Your task to perform on an android device: Open Amazon Image 0: 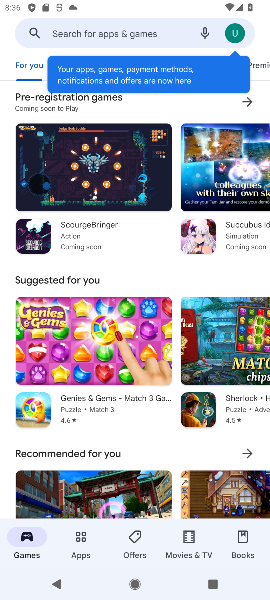
Step 0: drag from (123, 464) to (140, 199)
Your task to perform on an android device: Open Amazon Image 1: 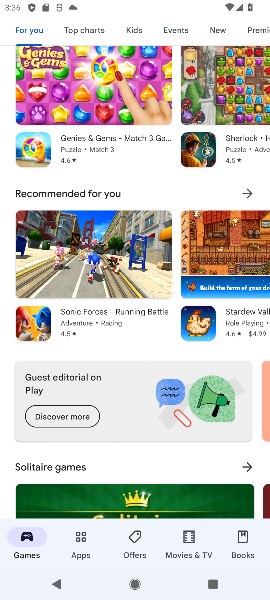
Step 1: drag from (131, 135) to (264, 470)
Your task to perform on an android device: Open Amazon Image 2: 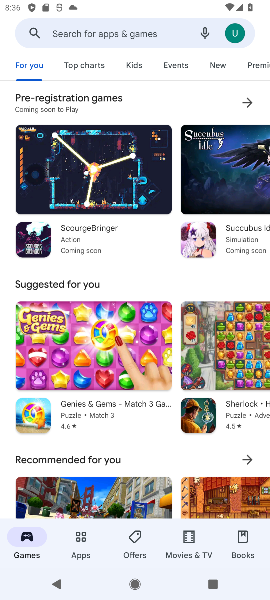
Step 2: press home button
Your task to perform on an android device: Open Amazon Image 3: 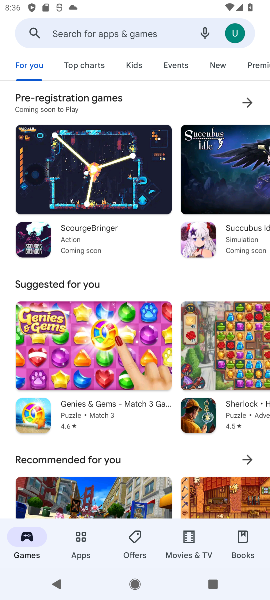
Step 3: click (222, 436)
Your task to perform on an android device: Open Amazon Image 4: 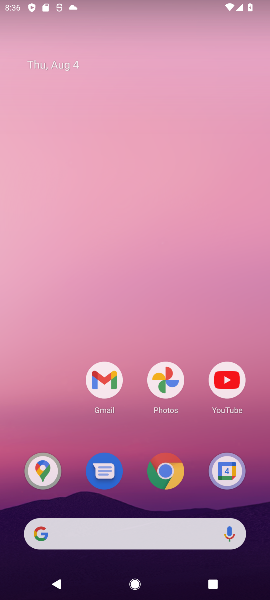
Step 4: drag from (145, 483) to (252, 114)
Your task to perform on an android device: Open Amazon Image 5: 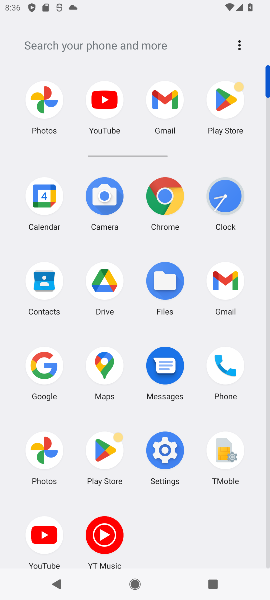
Step 5: click (146, 191)
Your task to perform on an android device: Open Amazon Image 6: 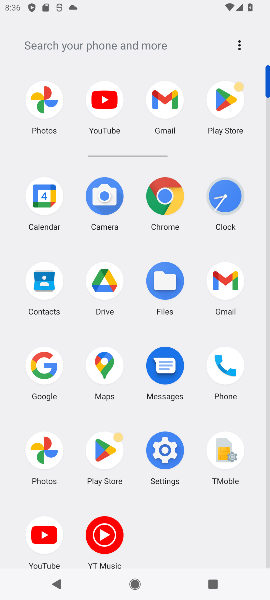
Step 6: click (146, 191)
Your task to perform on an android device: Open Amazon Image 7: 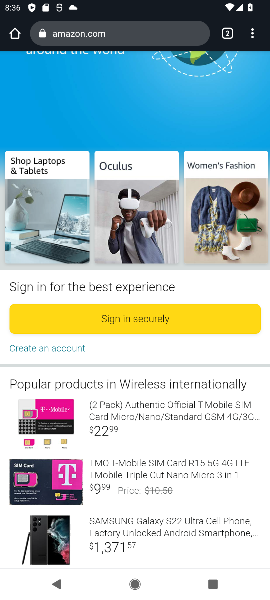
Step 7: click (154, 36)
Your task to perform on an android device: Open Amazon Image 8: 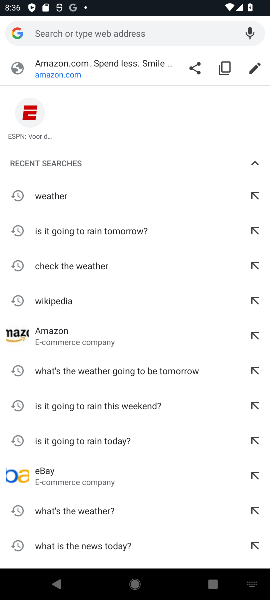
Step 8: type "amazon"
Your task to perform on an android device: Open Amazon Image 9: 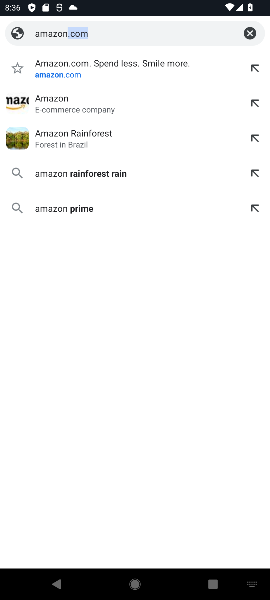
Step 9: click (72, 70)
Your task to perform on an android device: Open Amazon Image 10: 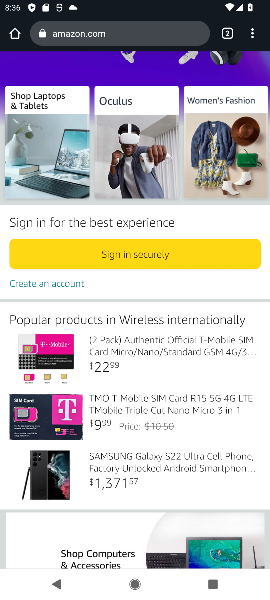
Step 10: task complete